Your task to perform on an android device: choose inbox layout in the gmail app Image 0: 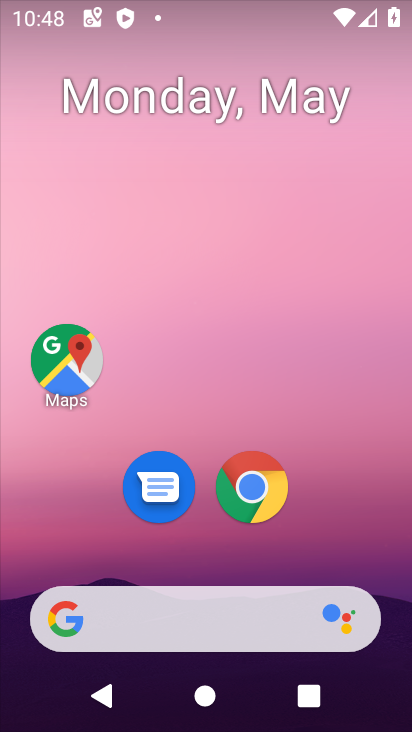
Step 0: drag from (371, 543) to (387, 259)
Your task to perform on an android device: choose inbox layout in the gmail app Image 1: 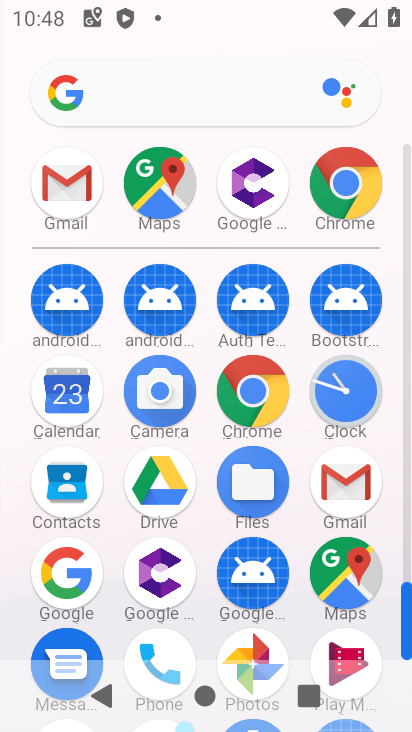
Step 1: click (356, 507)
Your task to perform on an android device: choose inbox layout in the gmail app Image 2: 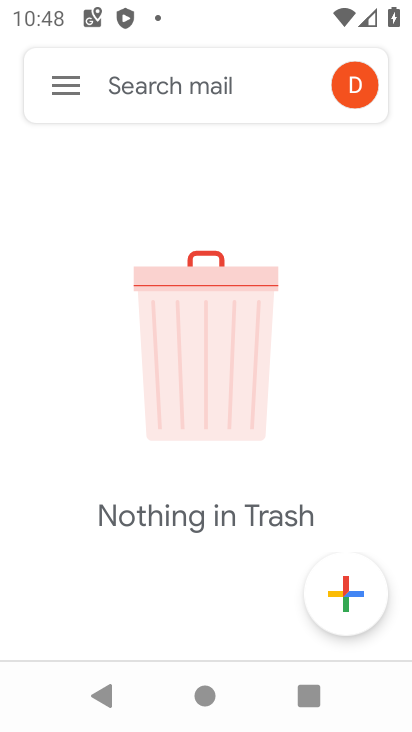
Step 2: click (73, 81)
Your task to perform on an android device: choose inbox layout in the gmail app Image 3: 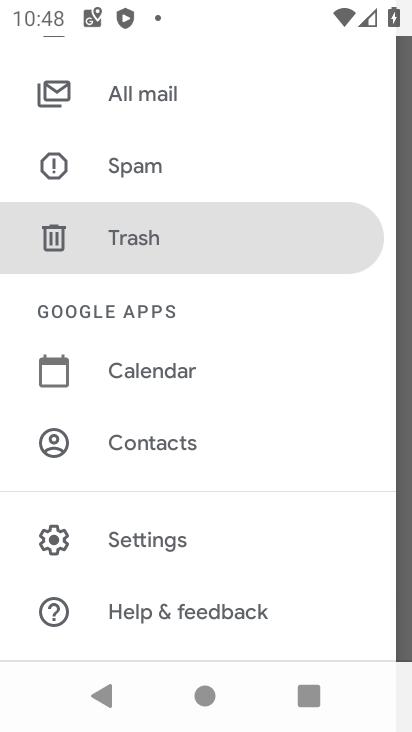
Step 3: drag from (316, 342) to (331, 453)
Your task to perform on an android device: choose inbox layout in the gmail app Image 4: 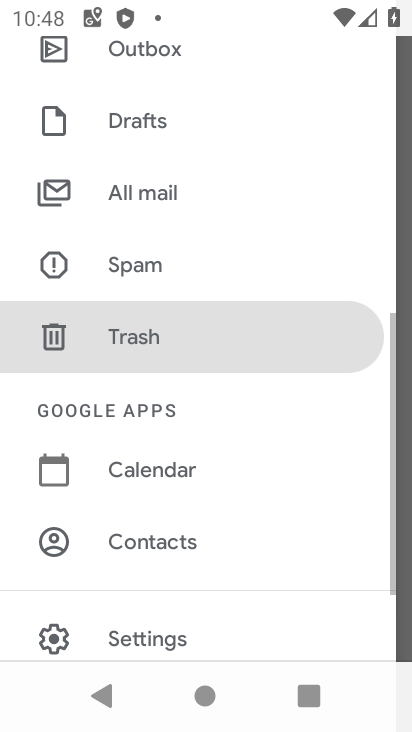
Step 4: drag from (357, 258) to (361, 409)
Your task to perform on an android device: choose inbox layout in the gmail app Image 5: 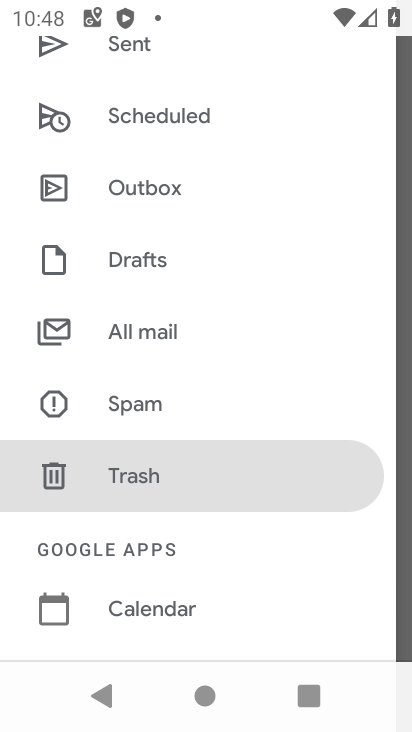
Step 5: drag from (345, 234) to (344, 365)
Your task to perform on an android device: choose inbox layout in the gmail app Image 6: 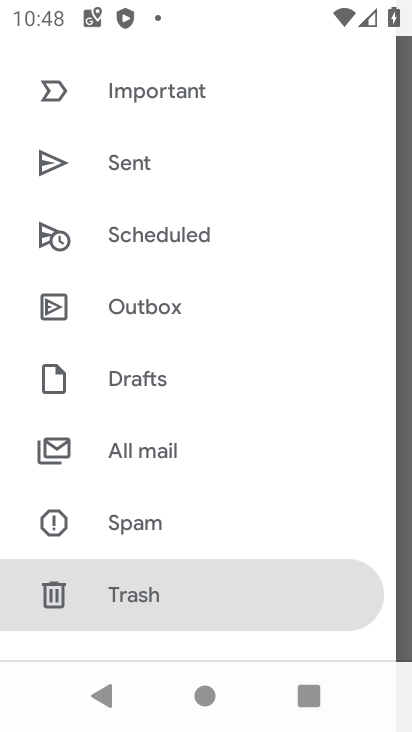
Step 6: drag from (336, 182) to (343, 329)
Your task to perform on an android device: choose inbox layout in the gmail app Image 7: 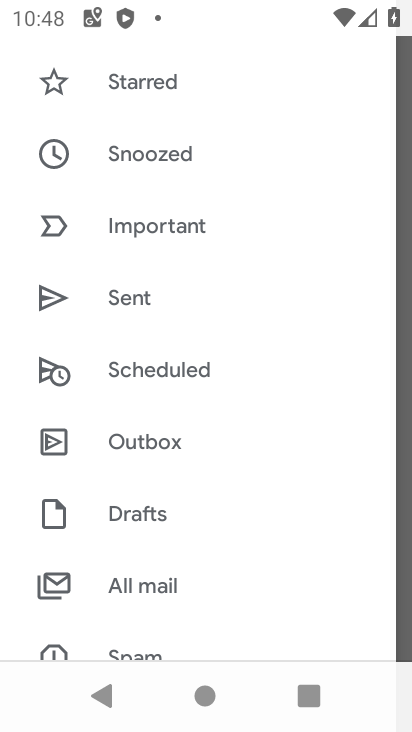
Step 7: drag from (329, 166) to (330, 326)
Your task to perform on an android device: choose inbox layout in the gmail app Image 8: 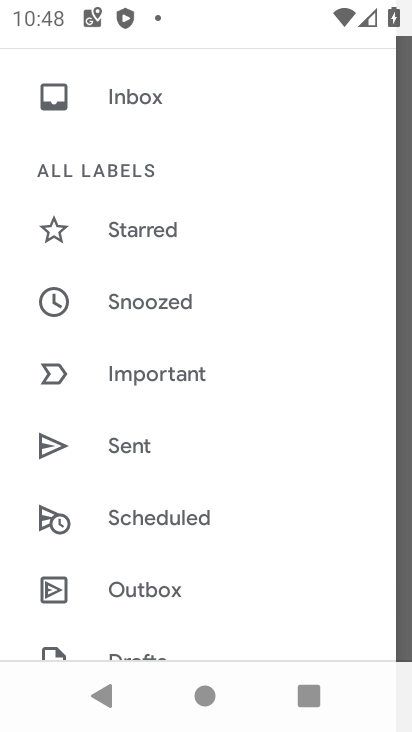
Step 8: drag from (328, 422) to (335, 282)
Your task to perform on an android device: choose inbox layout in the gmail app Image 9: 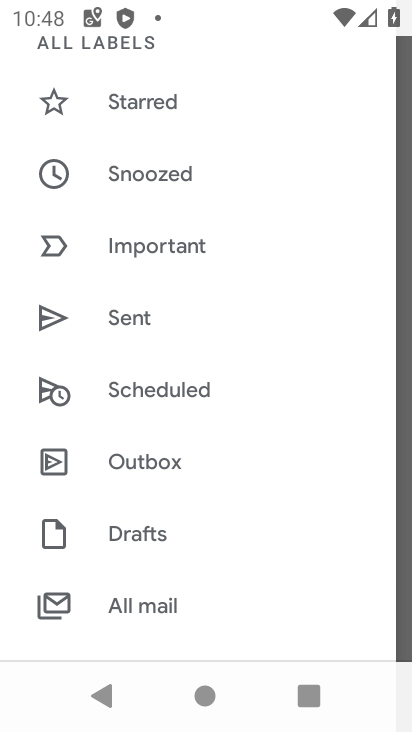
Step 9: drag from (324, 486) to (333, 388)
Your task to perform on an android device: choose inbox layout in the gmail app Image 10: 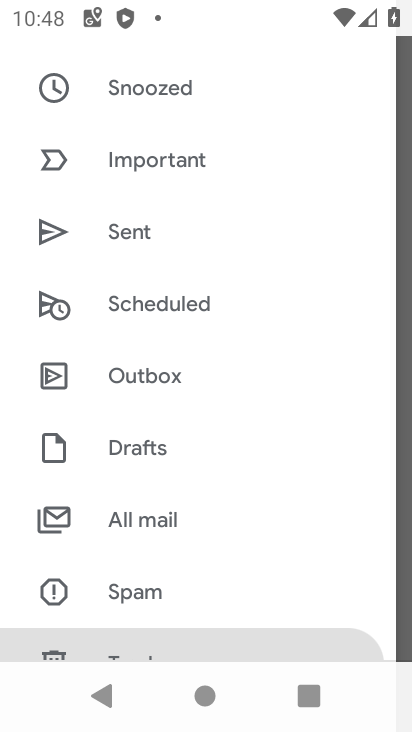
Step 10: click (352, 446)
Your task to perform on an android device: choose inbox layout in the gmail app Image 11: 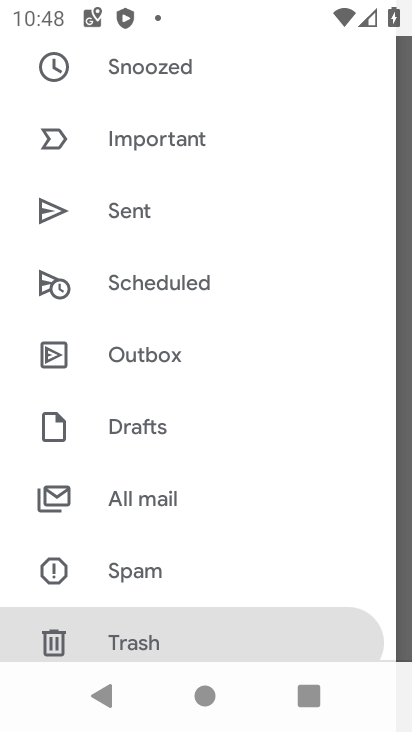
Step 11: drag from (339, 503) to (339, 372)
Your task to perform on an android device: choose inbox layout in the gmail app Image 12: 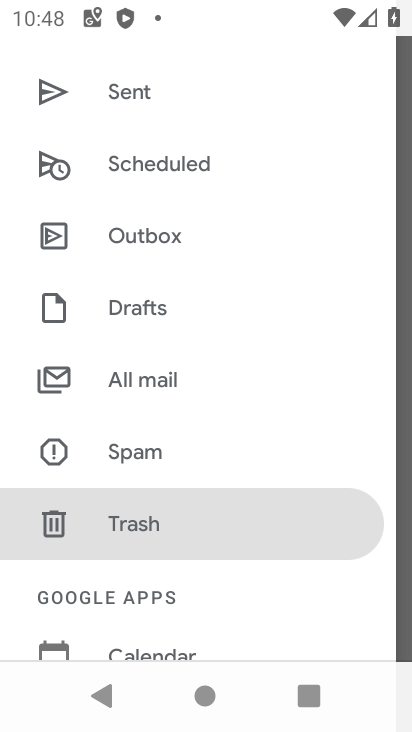
Step 12: drag from (334, 558) to (341, 425)
Your task to perform on an android device: choose inbox layout in the gmail app Image 13: 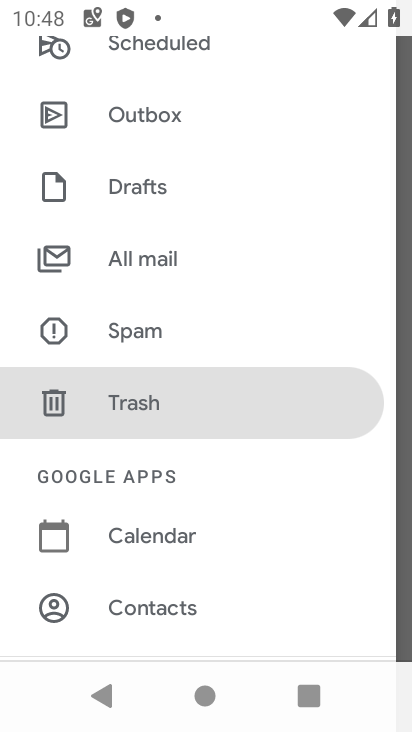
Step 13: drag from (347, 562) to (342, 478)
Your task to perform on an android device: choose inbox layout in the gmail app Image 14: 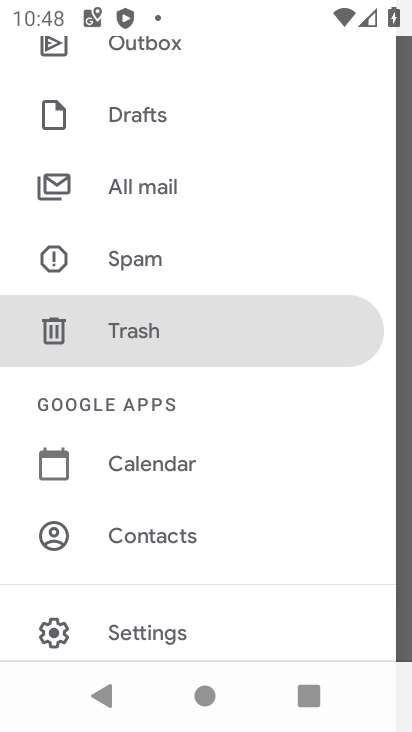
Step 14: drag from (327, 579) to (323, 484)
Your task to perform on an android device: choose inbox layout in the gmail app Image 15: 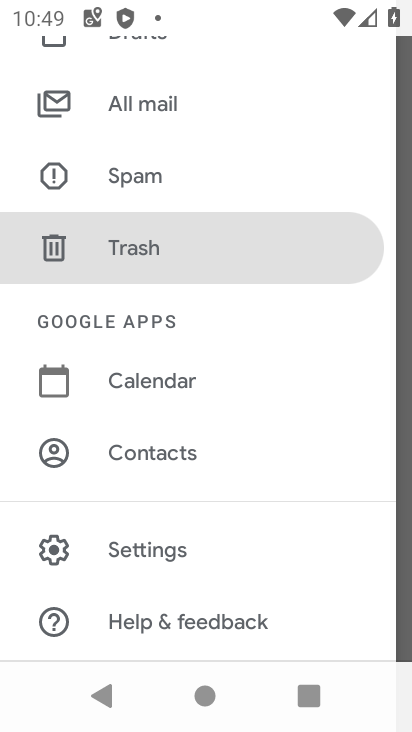
Step 15: click (197, 557)
Your task to perform on an android device: choose inbox layout in the gmail app Image 16: 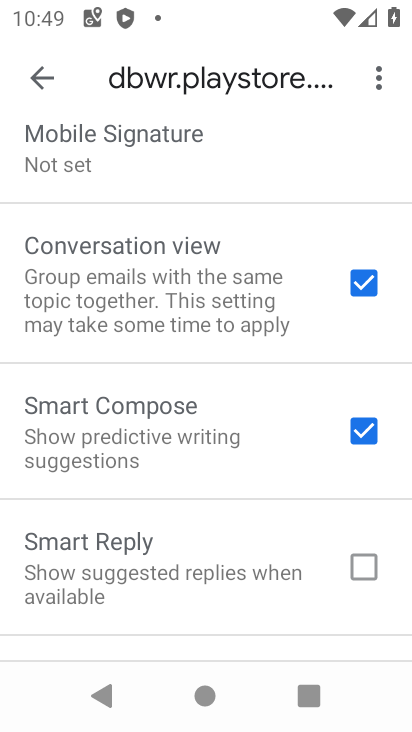
Step 16: drag from (203, 234) to (214, 416)
Your task to perform on an android device: choose inbox layout in the gmail app Image 17: 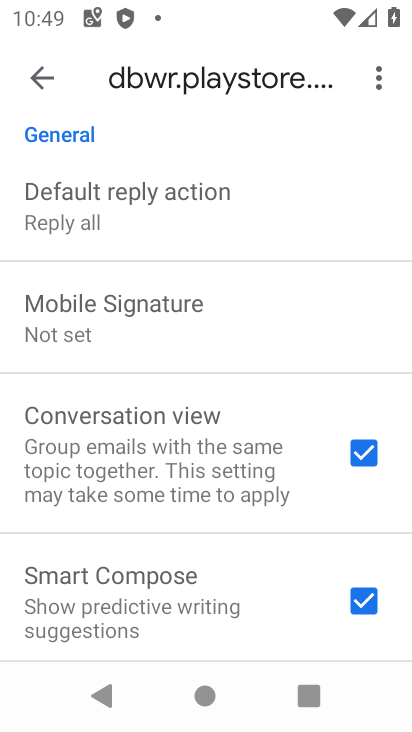
Step 17: drag from (238, 252) to (267, 380)
Your task to perform on an android device: choose inbox layout in the gmail app Image 18: 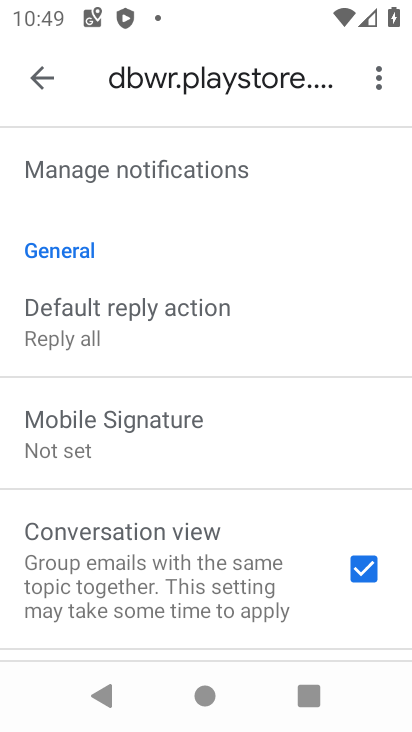
Step 18: drag from (285, 236) to (312, 378)
Your task to perform on an android device: choose inbox layout in the gmail app Image 19: 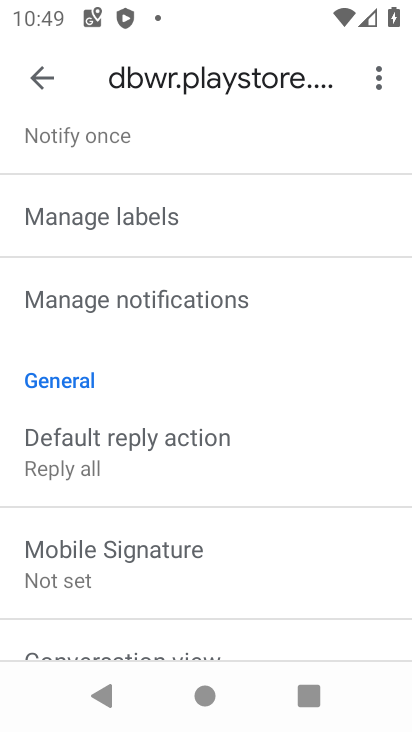
Step 19: drag from (293, 211) to (306, 329)
Your task to perform on an android device: choose inbox layout in the gmail app Image 20: 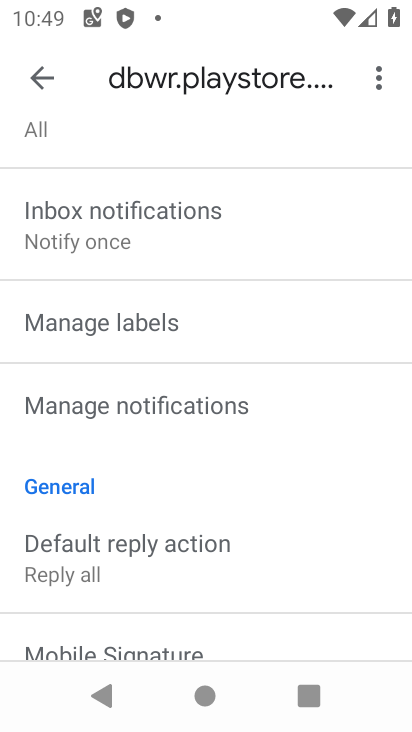
Step 20: drag from (307, 263) to (319, 367)
Your task to perform on an android device: choose inbox layout in the gmail app Image 21: 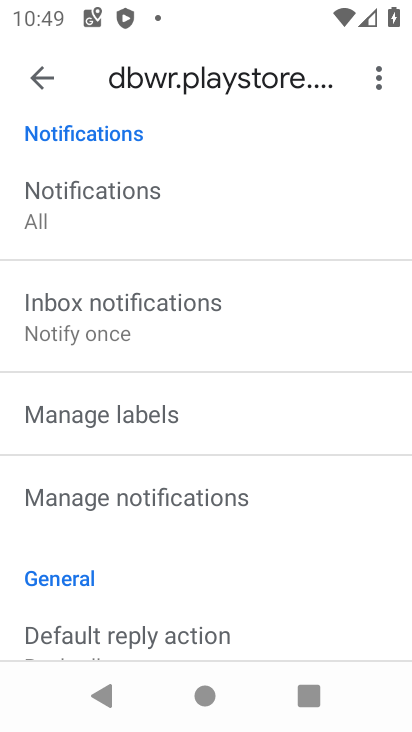
Step 21: drag from (305, 197) to (306, 313)
Your task to perform on an android device: choose inbox layout in the gmail app Image 22: 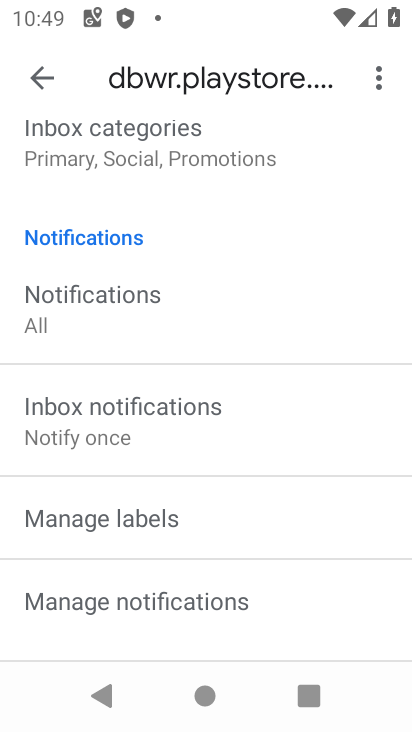
Step 22: drag from (287, 204) to (294, 320)
Your task to perform on an android device: choose inbox layout in the gmail app Image 23: 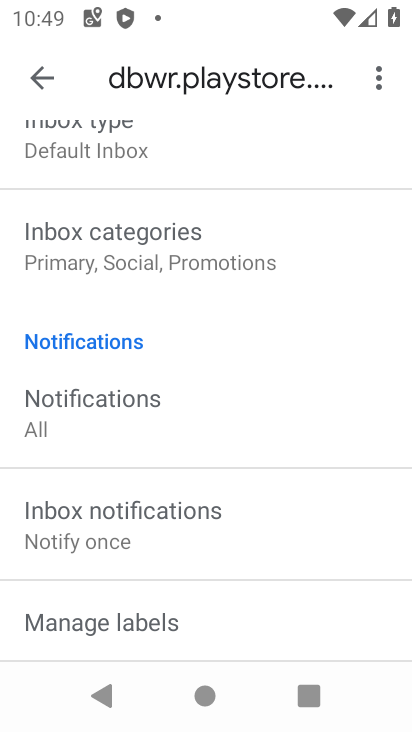
Step 23: drag from (272, 147) to (268, 283)
Your task to perform on an android device: choose inbox layout in the gmail app Image 24: 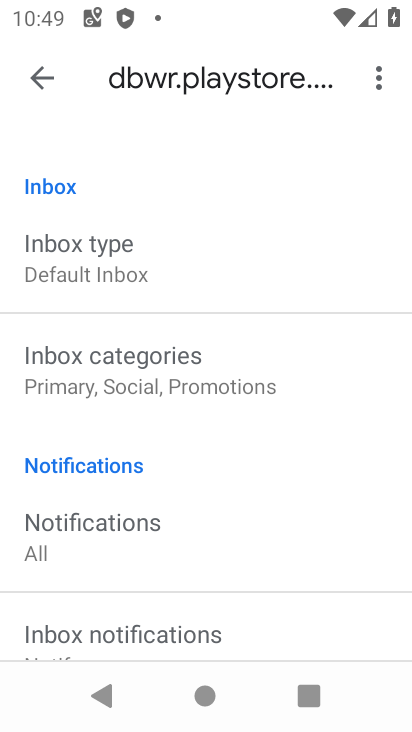
Step 24: drag from (232, 187) to (228, 297)
Your task to perform on an android device: choose inbox layout in the gmail app Image 25: 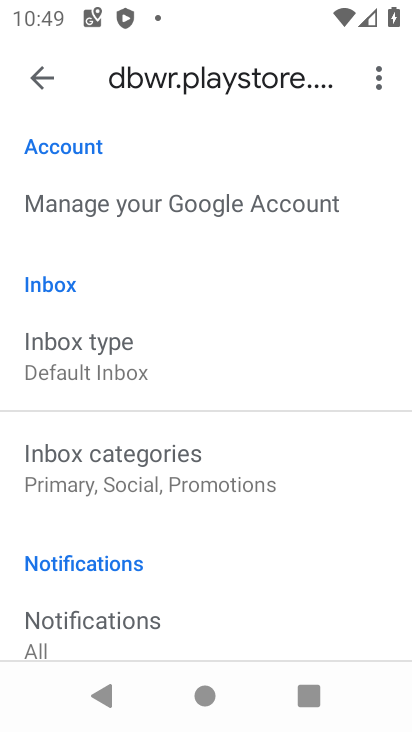
Step 25: click (104, 359)
Your task to perform on an android device: choose inbox layout in the gmail app Image 26: 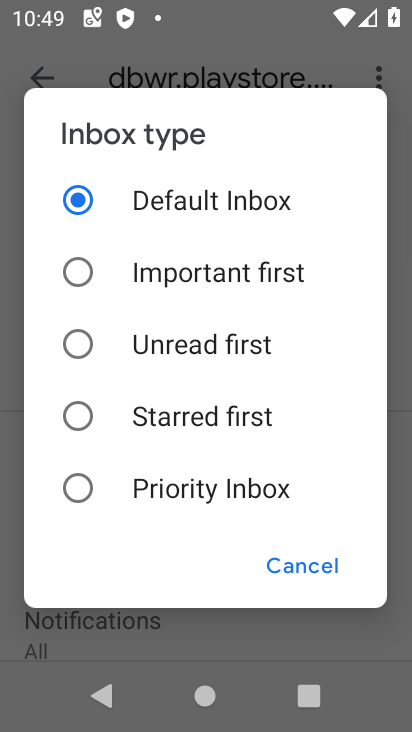
Step 26: click (118, 350)
Your task to perform on an android device: choose inbox layout in the gmail app Image 27: 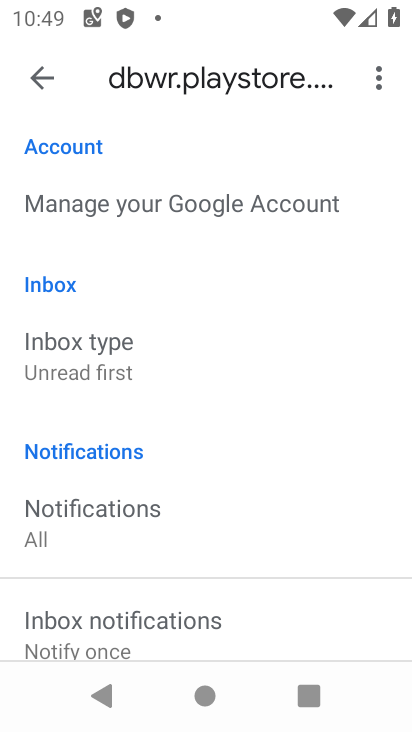
Step 27: task complete